Your task to perform on an android device: clear history in the chrome app Image 0: 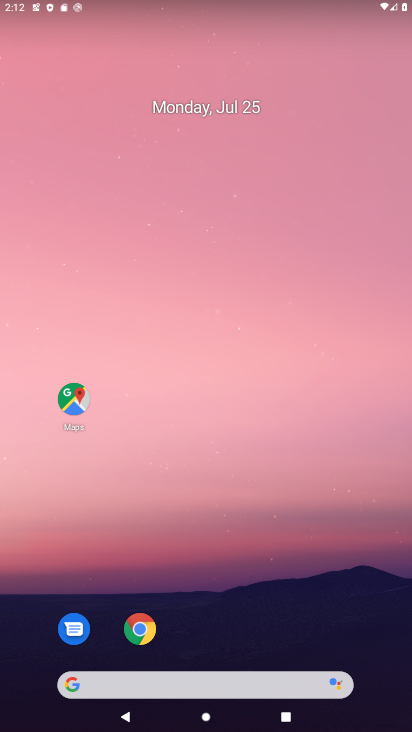
Step 0: click (130, 630)
Your task to perform on an android device: clear history in the chrome app Image 1: 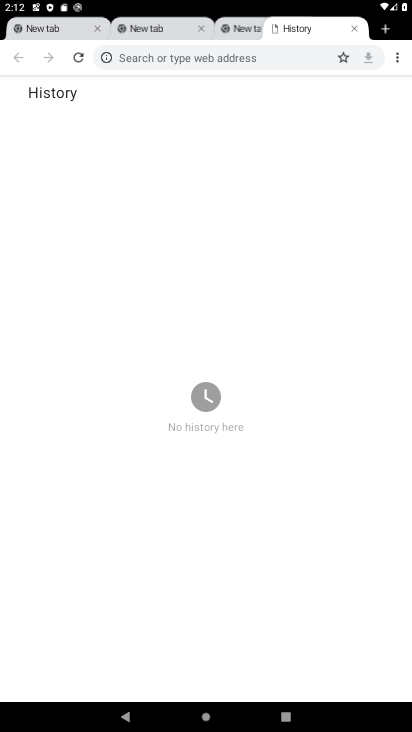
Step 1: task complete